Your task to perform on an android device: refresh tabs in the chrome app Image 0: 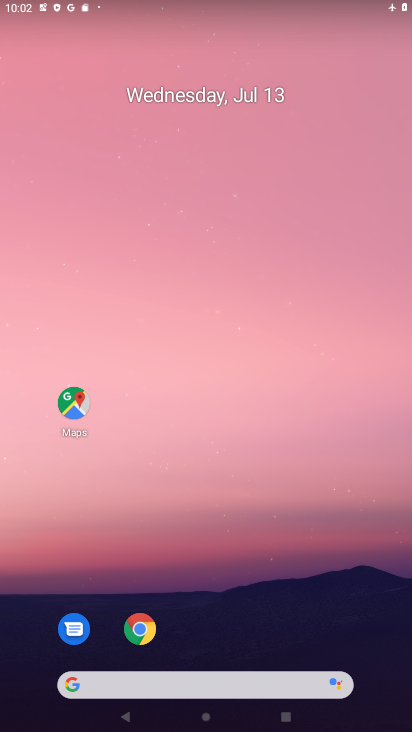
Step 0: click (148, 644)
Your task to perform on an android device: refresh tabs in the chrome app Image 1: 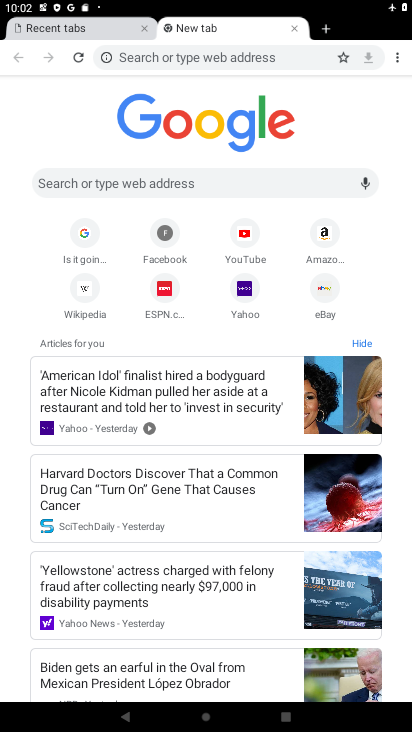
Step 1: click (396, 52)
Your task to perform on an android device: refresh tabs in the chrome app Image 2: 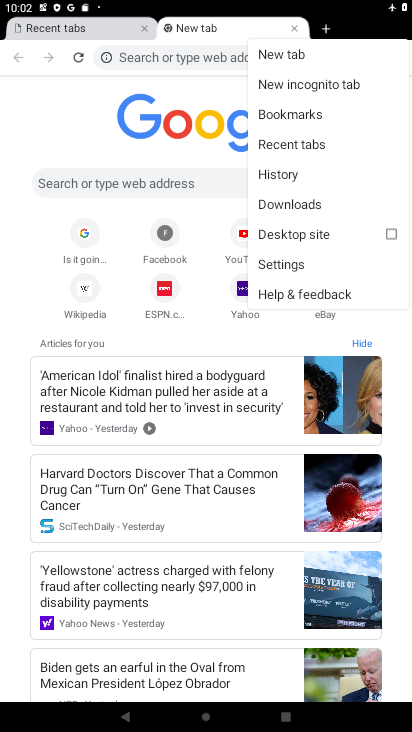
Step 2: click (244, 24)
Your task to perform on an android device: refresh tabs in the chrome app Image 3: 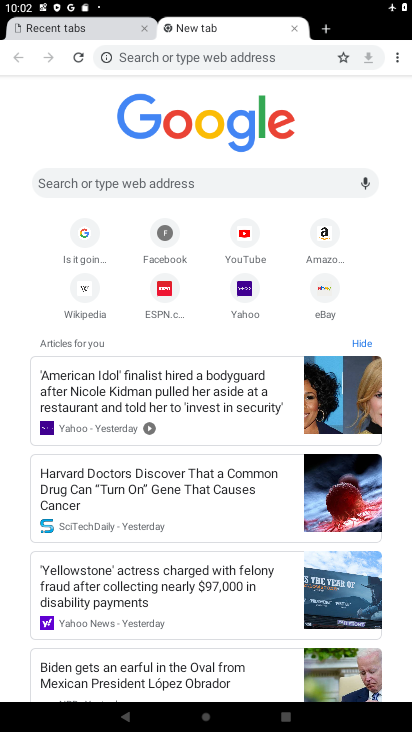
Step 3: click (72, 61)
Your task to perform on an android device: refresh tabs in the chrome app Image 4: 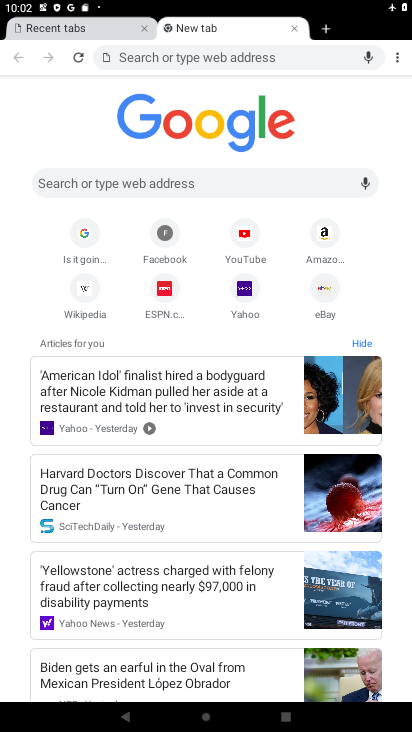
Step 4: task complete